Your task to perform on an android device: clear all cookies in the chrome app Image 0: 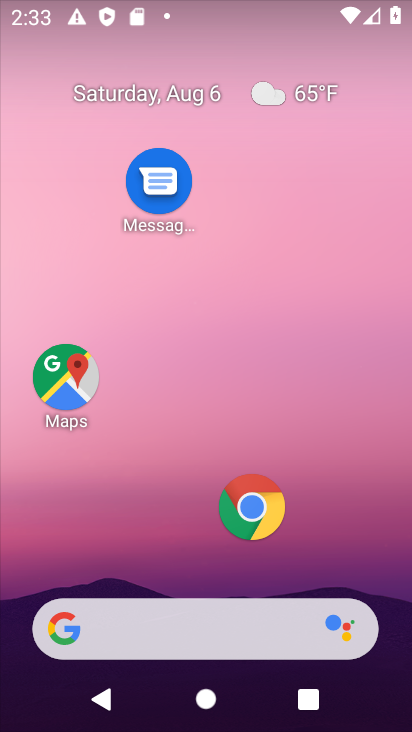
Step 0: click (240, 520)
Your task to perform on an android device: clear all cookies in the chrome app Image 1: 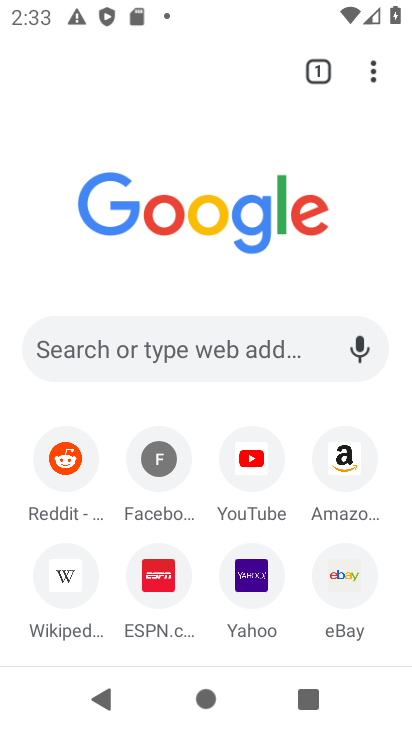
Step 1: click (371, 70)
Your task to perform on an android device: clear all cookies in the chrome app Image 2: 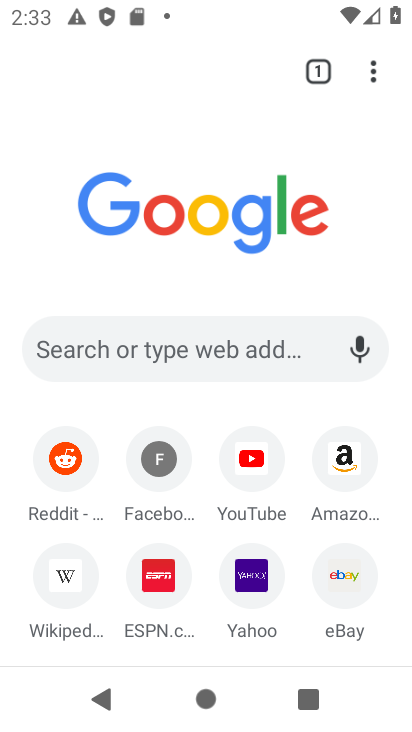
Step 2: click (377, 64)
Your task to perform on an android device: clear all cookies in the chrome app Image 3: 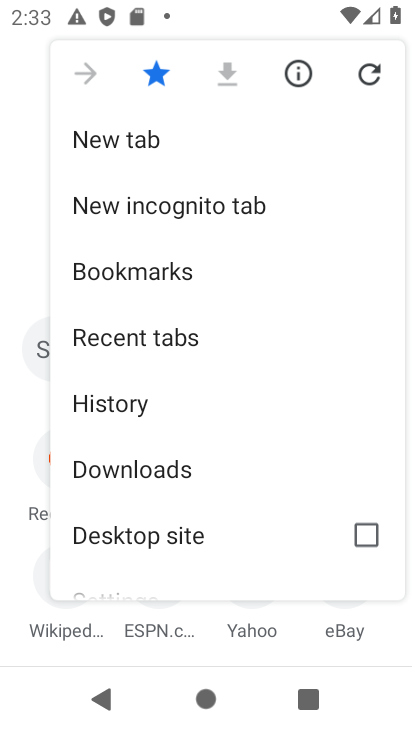
Step 3: drag from (174, 528) to (176, 397)
Your task to perform on an android device: clear all cookies in the chrome app Image 4: 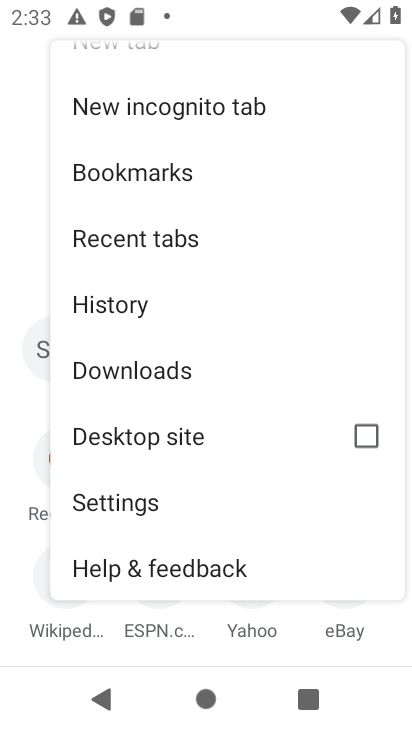
Step 4: click (130, 304)
Your task to perform on an android device: clear all cookies in the chrome app Image 5: 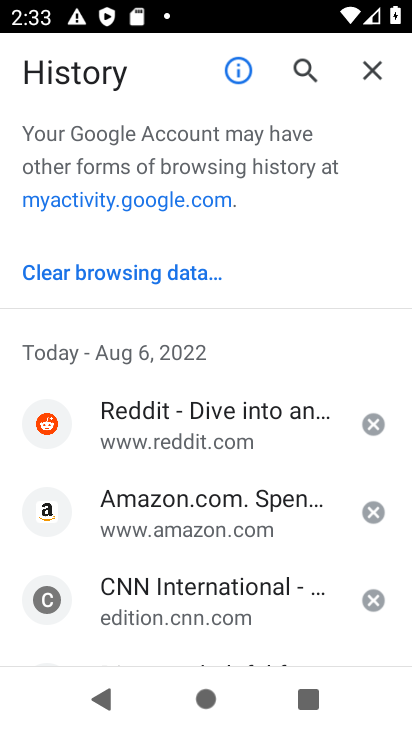
Step 5: click (121, 279)
Your task to perform on an android device: clear all cookies in the chrome app Image 6: 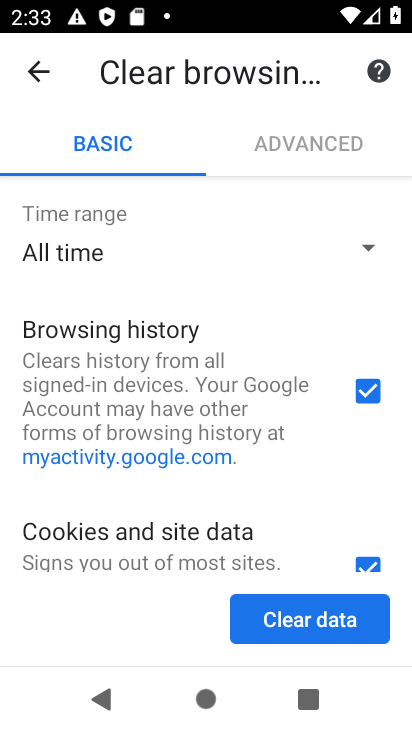
Step 6: click (351, 389)
Your task to perform on an android device: clear all cookies in the chrome app Image 7: 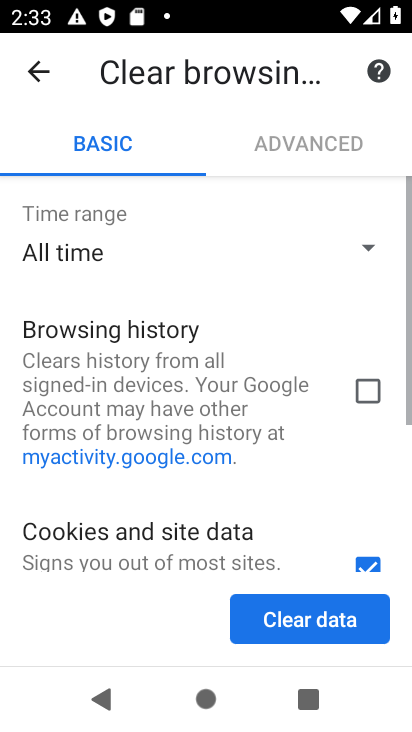
Step 7: drag from (254, 508) to (276, 128)
Your task to perform on an android device: clear all cookies in the chrome app Image 8: 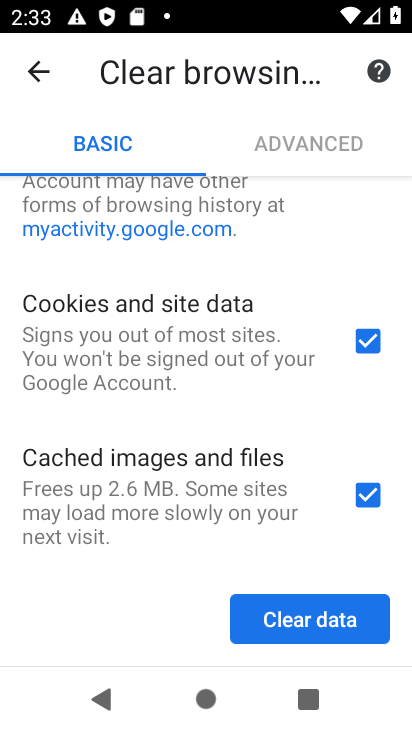
Step 8: click (364, 502)
Your task to perform on an android device: clear all cookies in the chrome app Image 9: 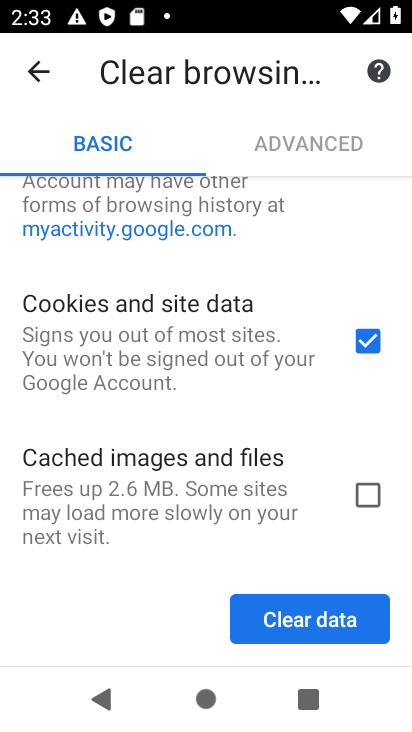
Step 9: click (321, 622)
Your task to perform on an android device: clear all cookies in the chrome app Image 10: 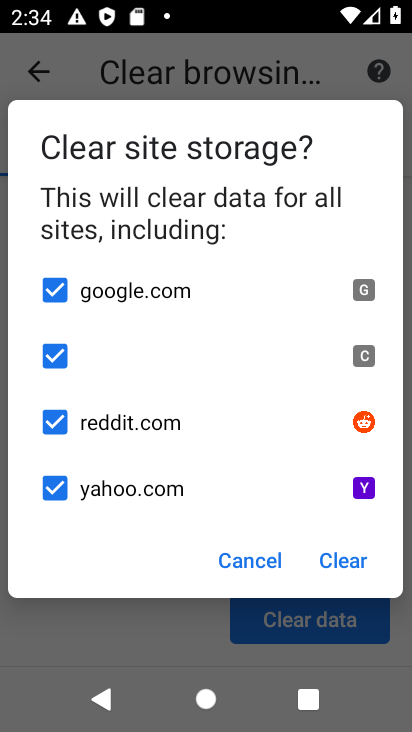
Step 10: click (341, 559)
Your task to perform on an android device: clear all cookies in the chrome app Image 11: 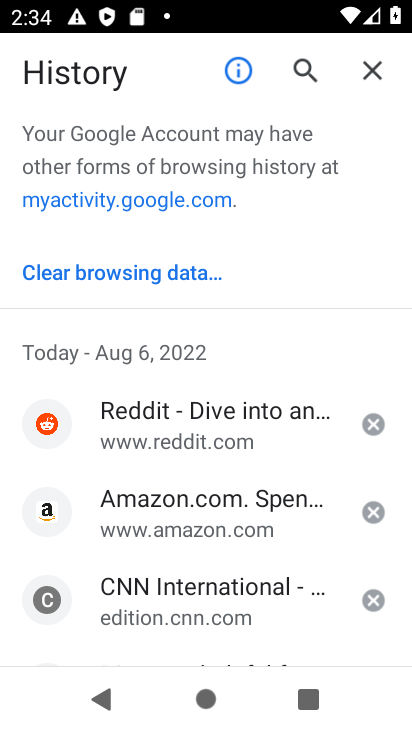
Step 11: task complete